Your task to perform on an android device: set default search engine in the chrome app Image 0: 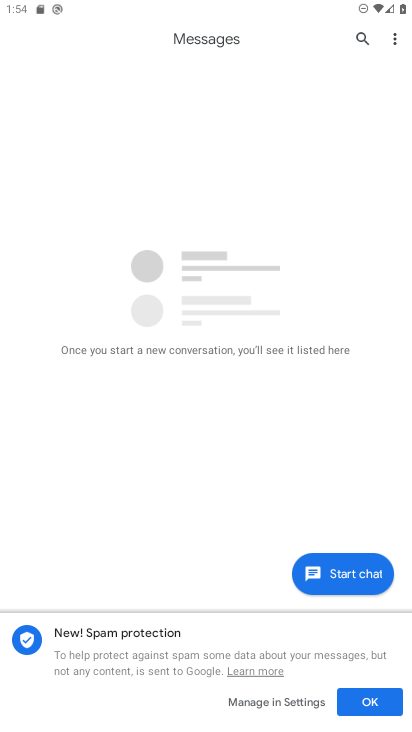
Step 0: press home button
Your task to perform on an android device: set default search engine in the chrome app Image 1: 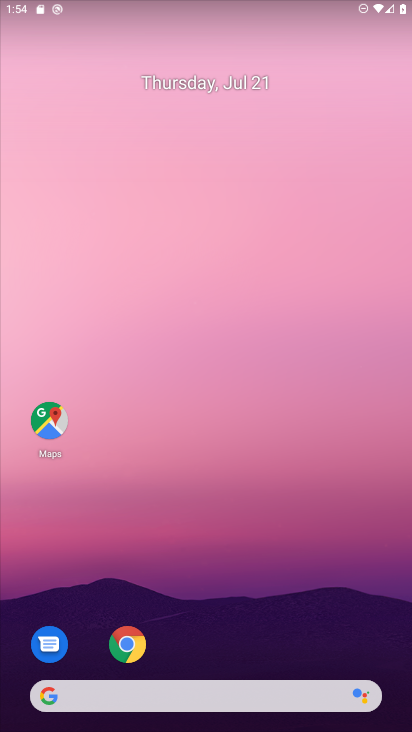
Step 1: click (122, 640)
Your task to perform on an android device: set default search engine in the chrome app Image 2: 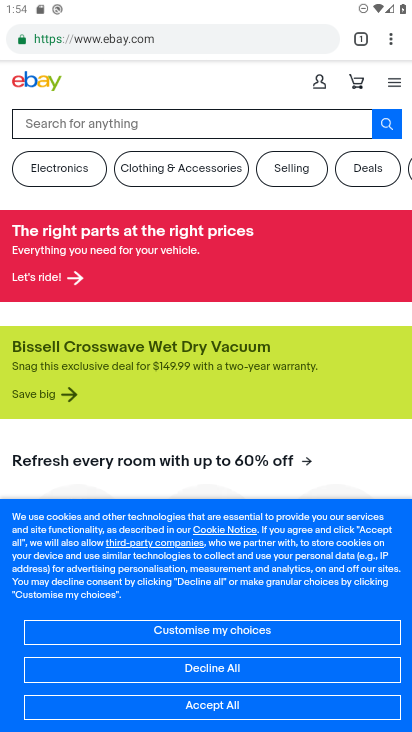
Step 2: click (393, 40)
Your task to perform on an android device: set default search engine in the chrome app Image 3: 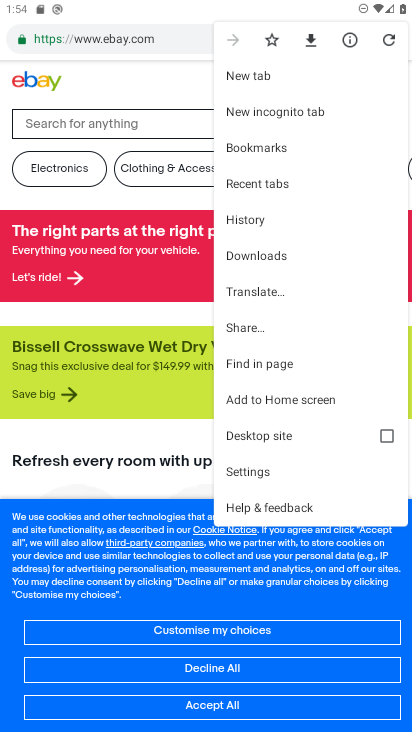
Step 3: click (268, 466)
Your task to perform on an android device: set default search engine in the chrome app Image 4: 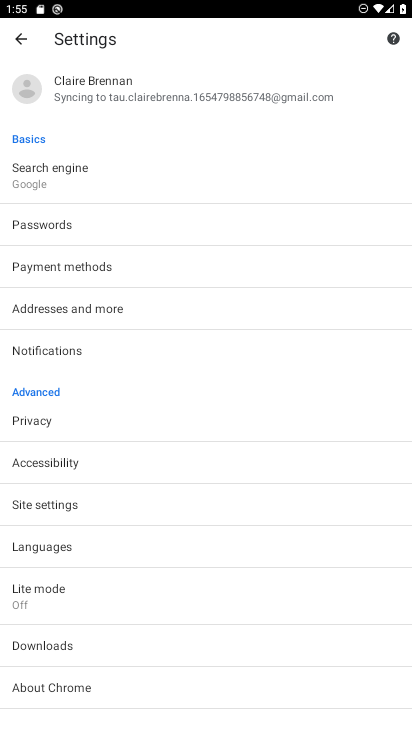
Step 4: click (59, 187)
Your task to perform on an android device: set default search engine in the chrome app Image 5: 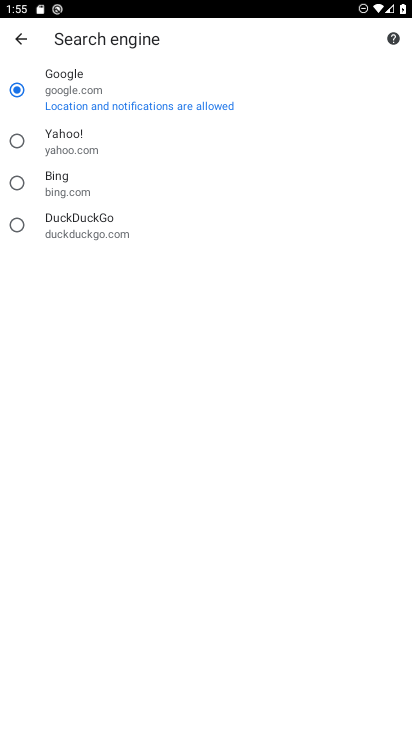
Step 5: click (64, 141)
Your task to perform on an android device: set default search engine in the chrome app Image 6: 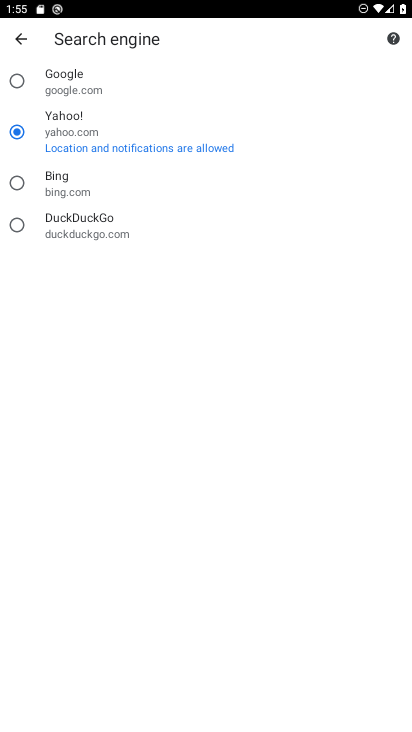
Step 6: task complete